Your task to perform on an android device: star an email in the gmail app Image 0: 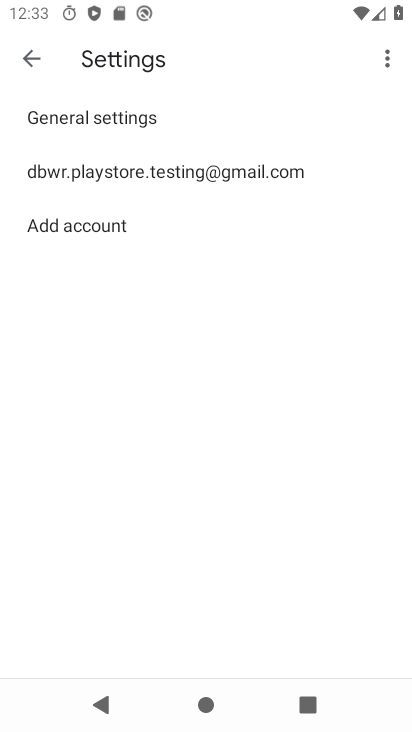
Step 0: click (25, 53)
Your task to perform on an android device: star an email in the gmail app Image 1: 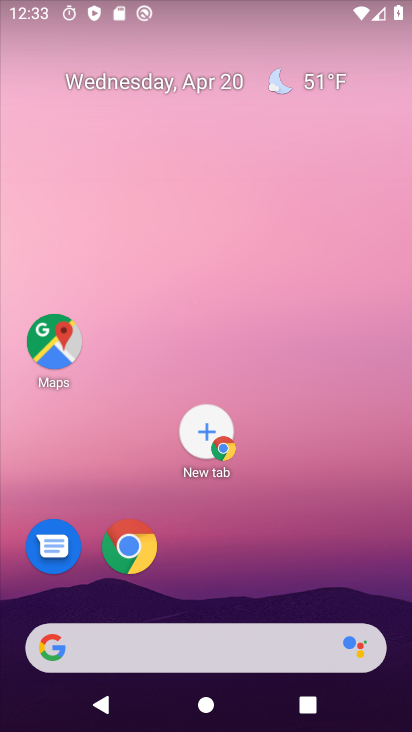
Step 1: press home button
Your task to perform on an android device: star an email in the gmail app Image 2: 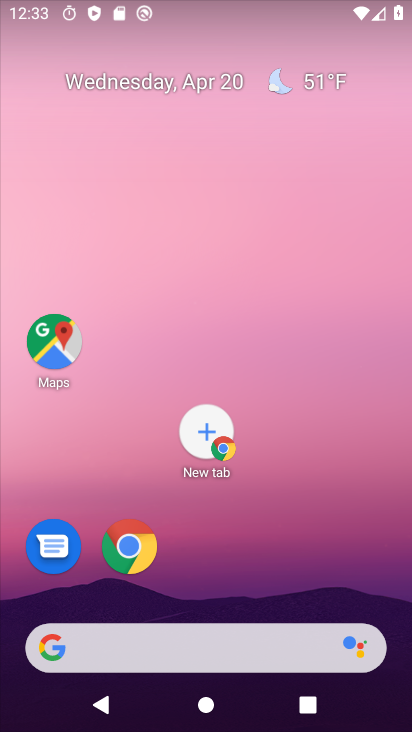
Step 2: drag from (157, 580) to (144, 137)
Your task to perform on an android device: star an email in the gmail app Image 3: 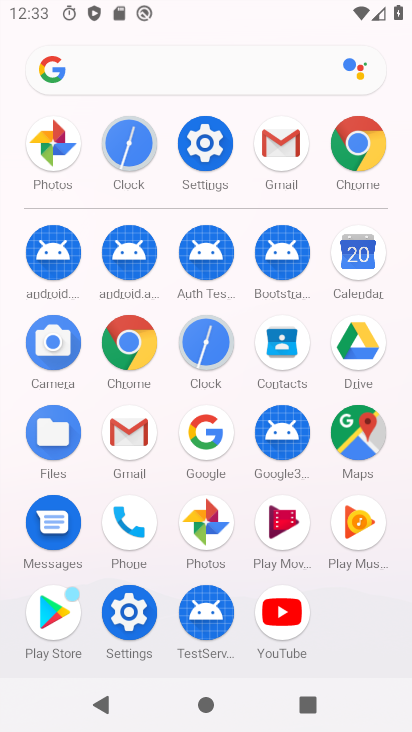
Step 3: click (274, 157)
Your task to perform on an android device: star an email in the gmail app Image 4: 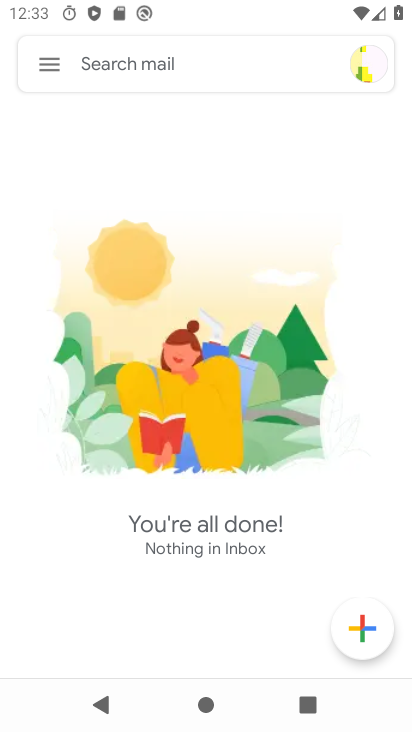
Step 4: click (40, 64)
Your task to perform on an android device: star an email in the gmail app Image 5: 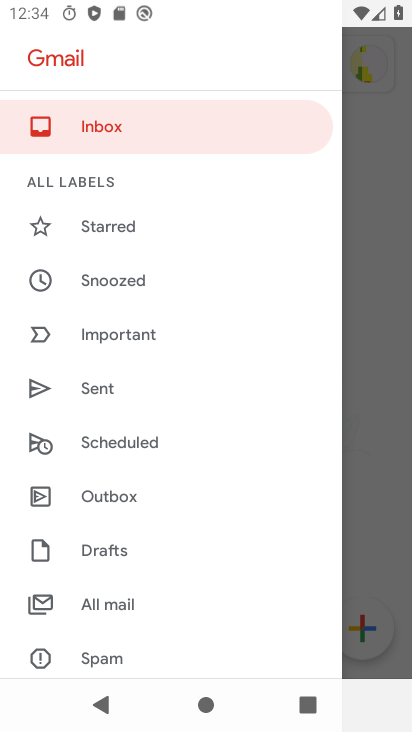
Step 5: drag from (126, 503) to (113, 203)
Your task to perform on an android device: star an email in the gmail app Image 6: 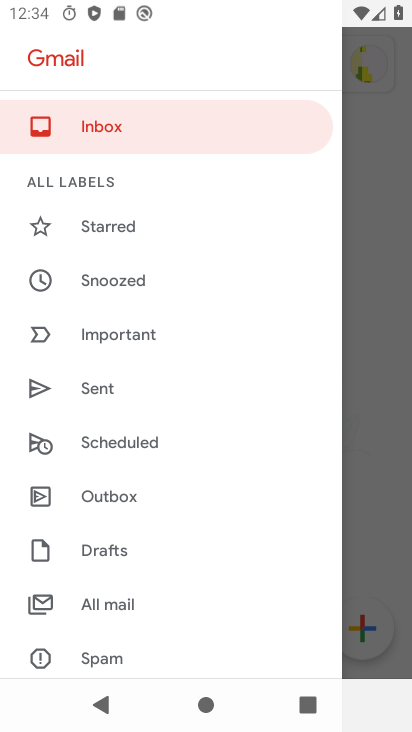
Step 6: click (111, 611)
Your task to perform on an android device: star an email in the gmail app Image 7: 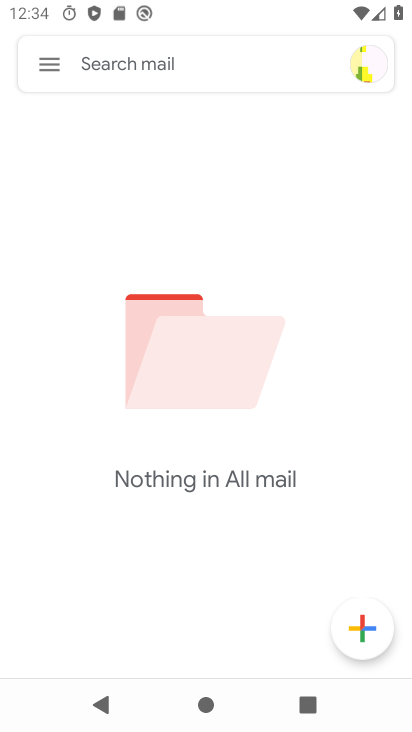
Step 7: task complete